Your task to perform on an android device: Is it going to rain this weekend? Image 0: 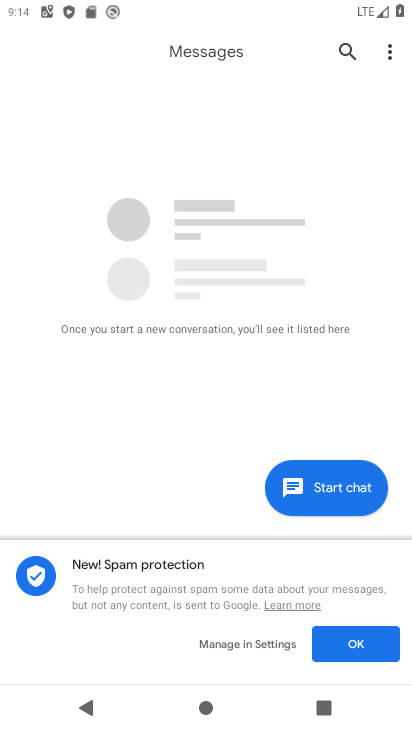
Step 0: press home button
Your task to perform on an android device: Is it going to rain this weekend? Image 1: 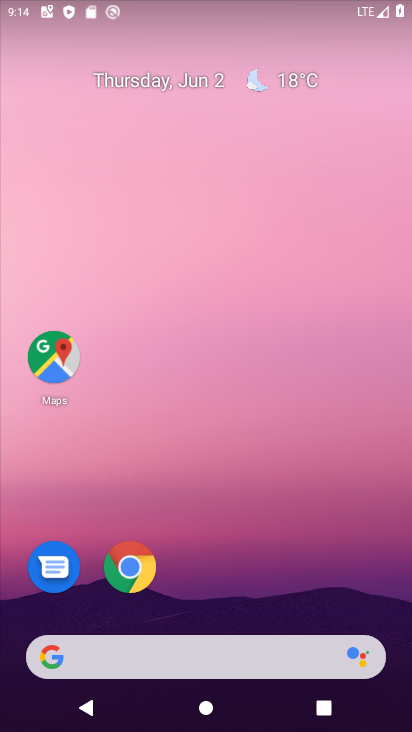
Step 1: drag from (203, 616) to (224, 21)
Your task to perform on an android device: Is it going to rain this weekend? Image 2: 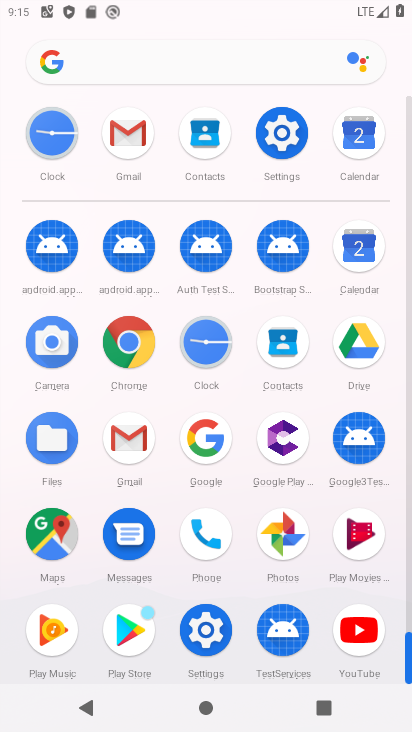
Step 2: press home button
Your task to perform on an android device: Is it going to rain this weekend? Image 3: 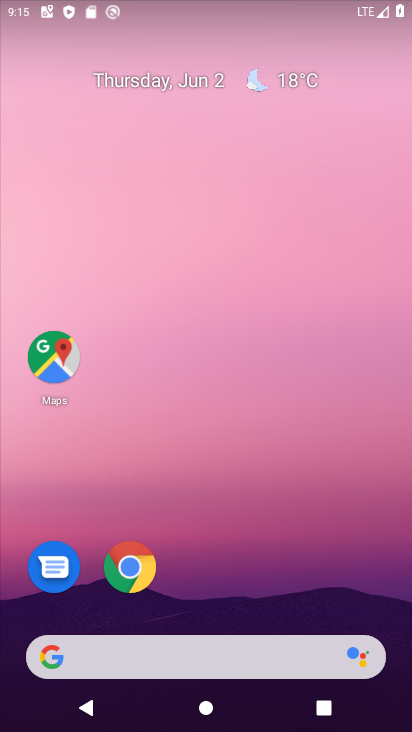
Step 3: click (288, 76)
Your task to perform on an android device: Is it going to rain this weekend? Image 4: 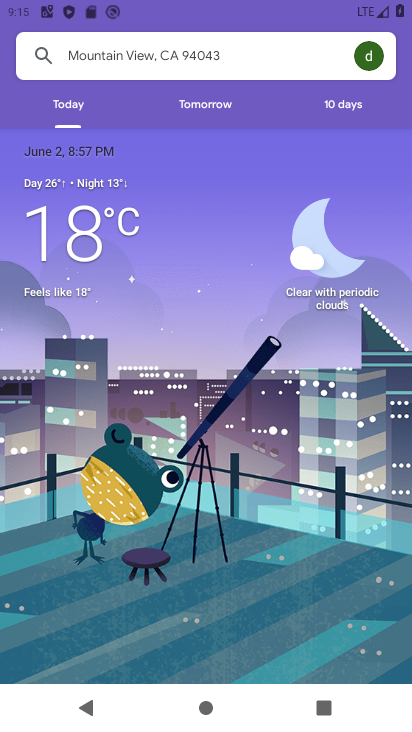
Step 4: click (346, 99)
Your task to perform on an android device: Is it going to rain this weekend? Image 5: 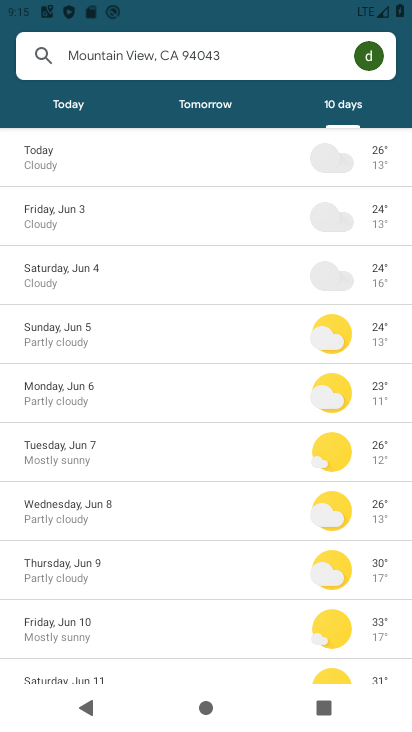
Step 5: task complete